Your task to perform on an android device: Open Google Image 0: 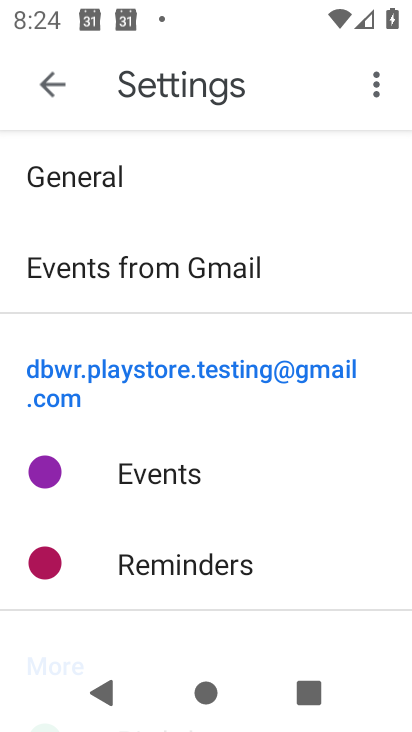
Step 0: press home button
Your task to perform on an android device: Open Google Image 1: 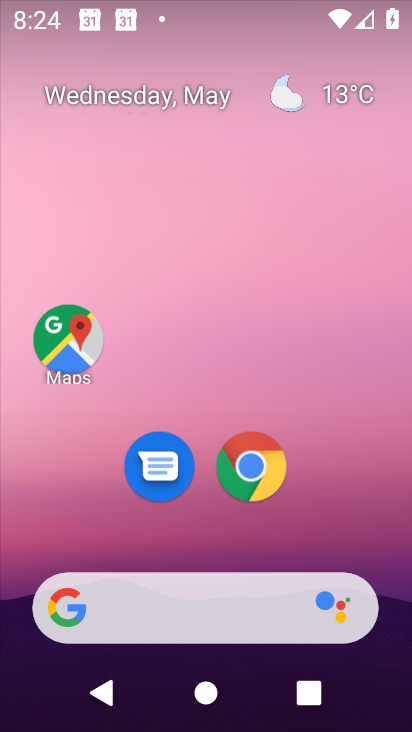
Step 1: drag from (197, 540) to (98, 26)
Your task to perform on an android device: Open Google Image 2: 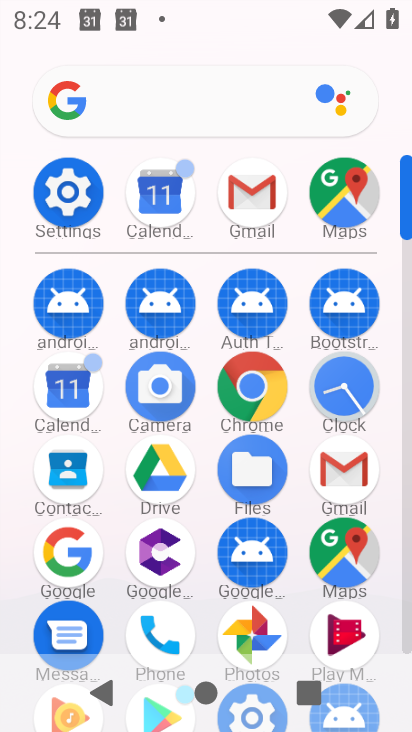
Step 2: click (68, 552)
Your task to perform on an android device: Open Google Image 3: 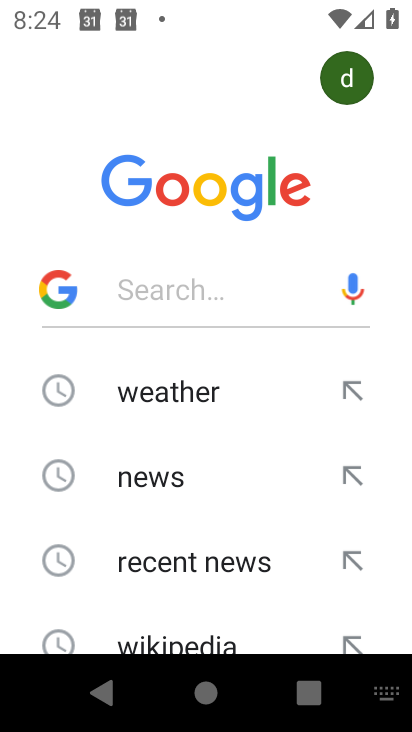
Step 3: task complete